Your task to perform on an android device: turn on location history Image 0: 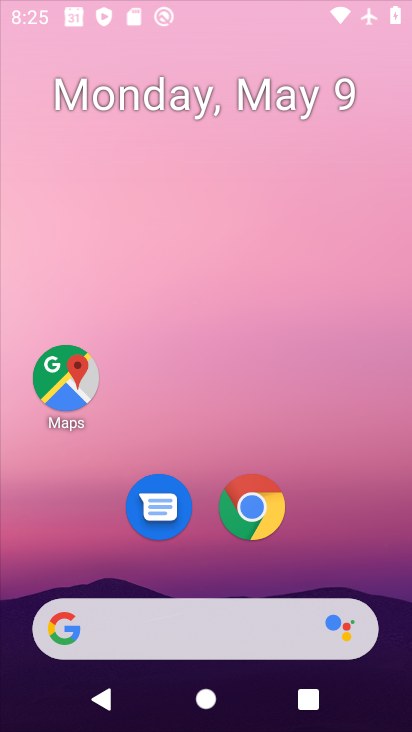
Step 0: click (53, 714)
Your task to perform on an android device: turn on location history Image 1: 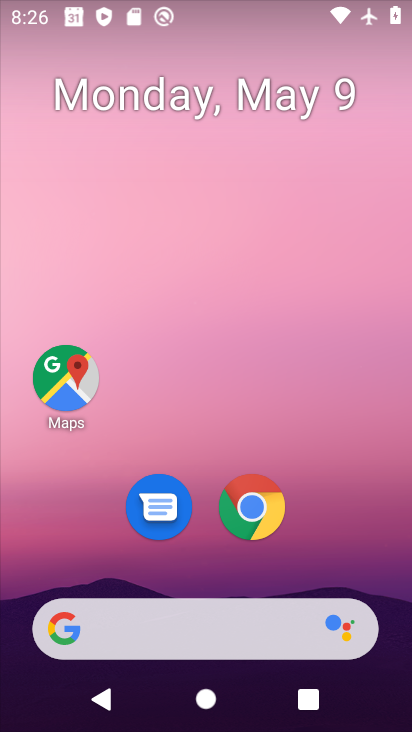
Step 1: drag from (215, 613) to (215, 2)
Your task to perform on an android device: turn on location history Image 2: 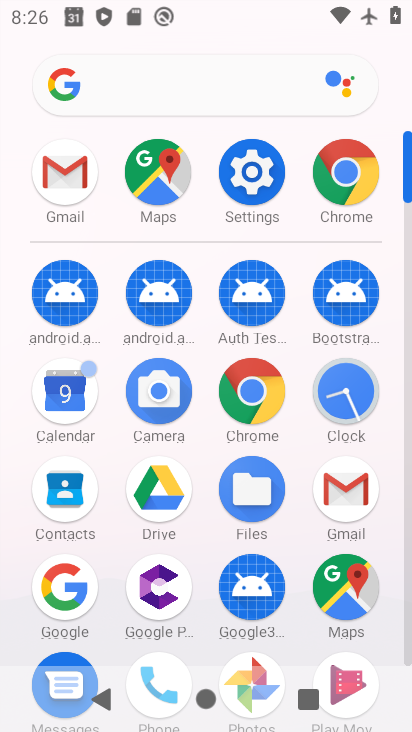
Step 2: click (244, 165)
Your task to perform on an android device: turn on location history Image 3: 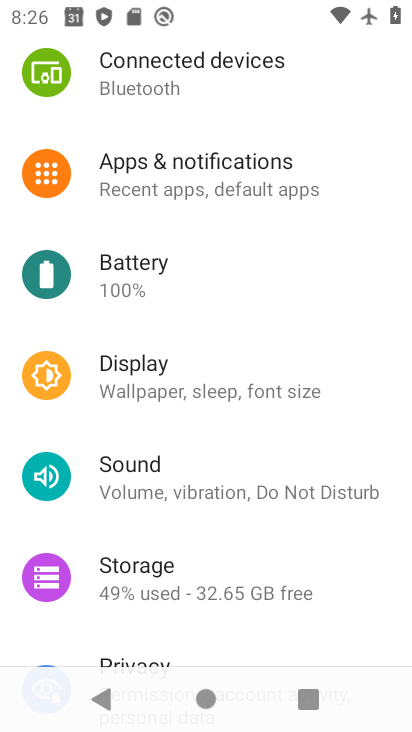
Step 3: drag from (181, 546) to (106, 127)
Your task to perform on an android device: turn on location history Image 4: 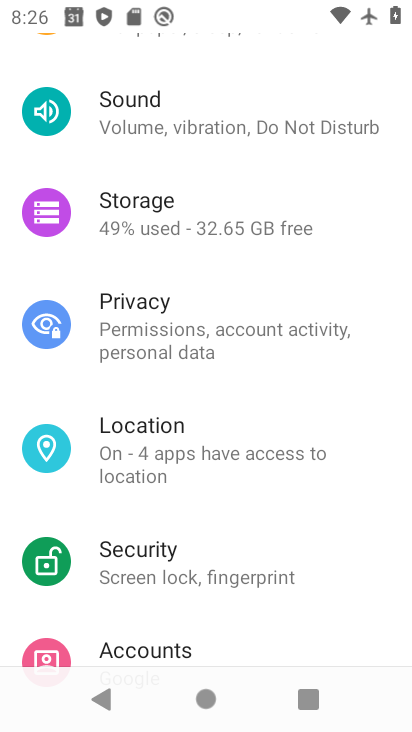
Step 4: click (154, 428)
Your task to perform on an android device: turn on location history Image 5: 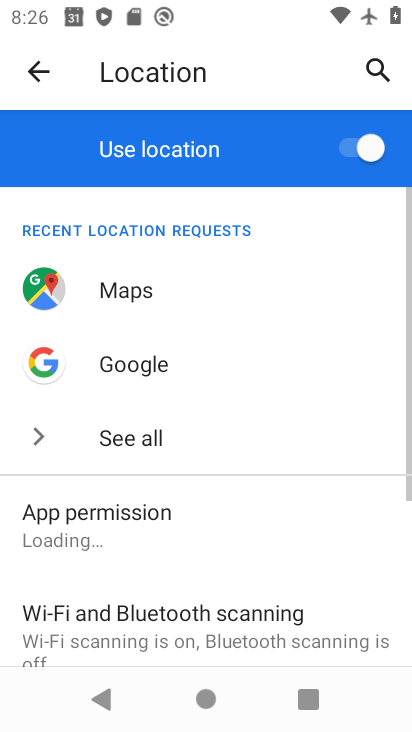
Step 5: drag from (231, 577) to (136, 123)
Your task to perform on an android device: turn on location history Image 6: 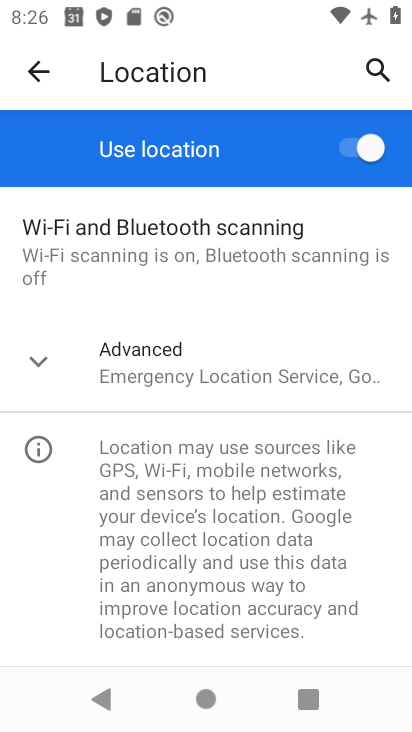
Step 6: click (146, 401)
Your task to perform on an android device: turn on location history Image 7: 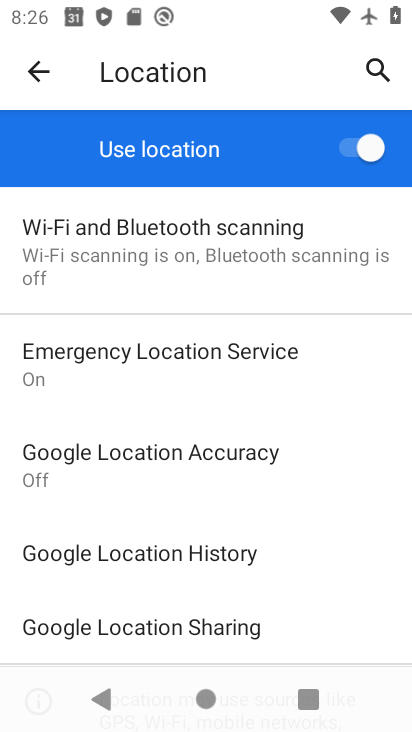
Step 7: click (228, 566)
Your task to perform on an android device: turn on location history Image 8: 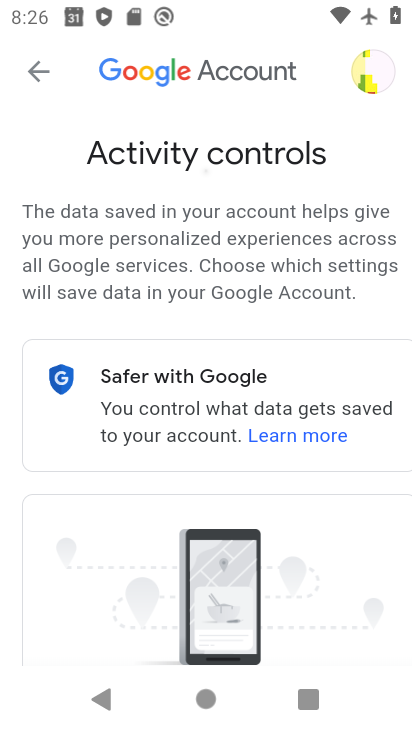
Step 8: drag from (232, 566) to (161, 166)
Your task to perform on an android device: turn on location history Image 9: 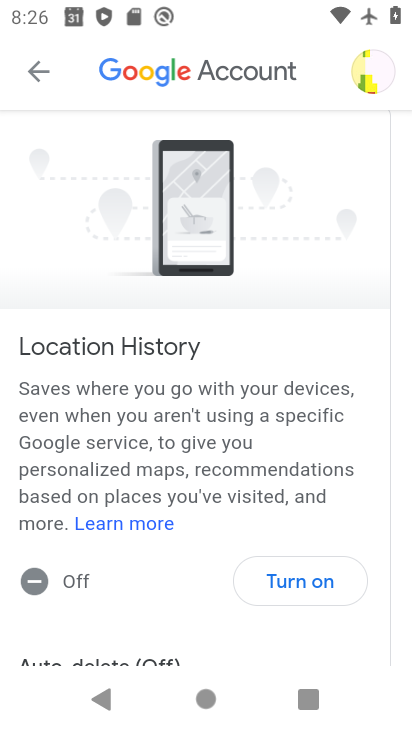
Step 9: click (255, 584)
Your task to perform on an android device: turn on location history Image 10: 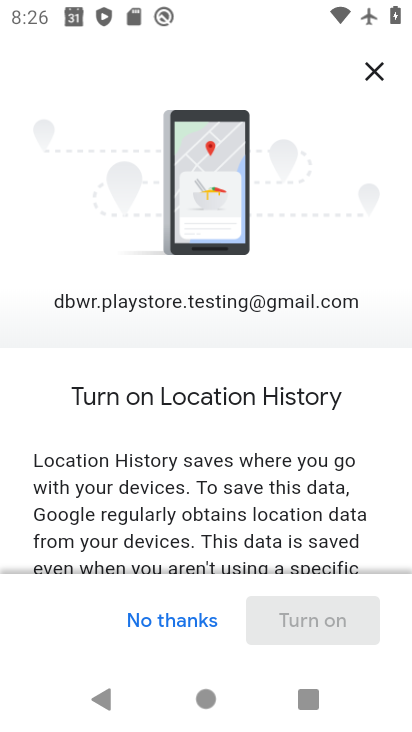
Step 10: drag from (325, 460) to (163, 0)
Your task to perform on an android device: turn on location history Image 11: 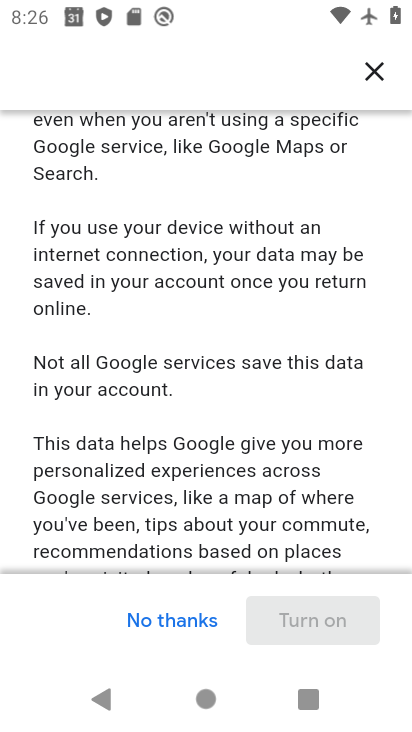
Step 11: drag from (220, 513) to (410, 392)
Your task to perform on an android device: turn on location history Image 12: 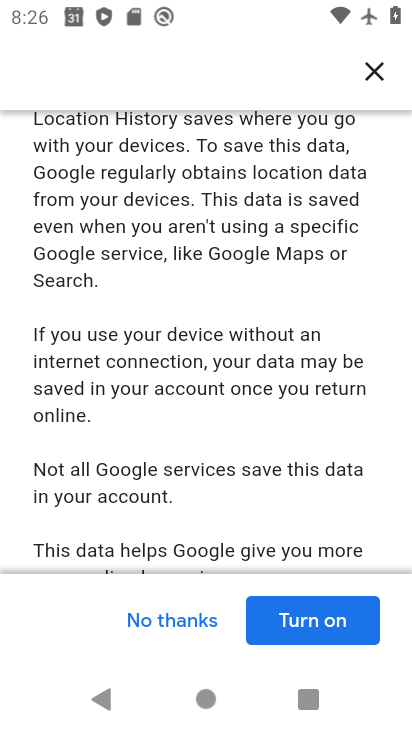
Step 12: click (276, 662)
Your task to perform on an android device: turn on location history Image 13: 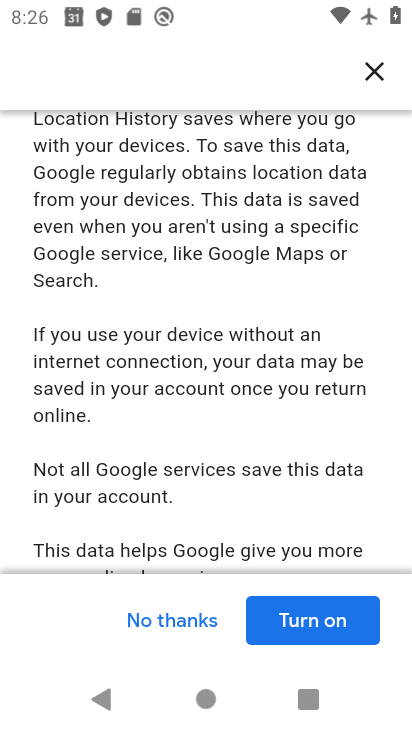
Step 13: click (279, 642)
Your task to perform on an android device: turn on location history Image 14: 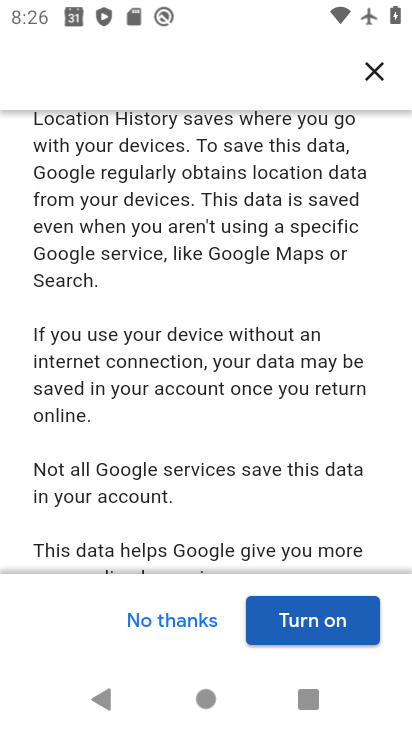
Step 14: click (287, 644)
Your task to perform on an android device: turn on location history Image 15: 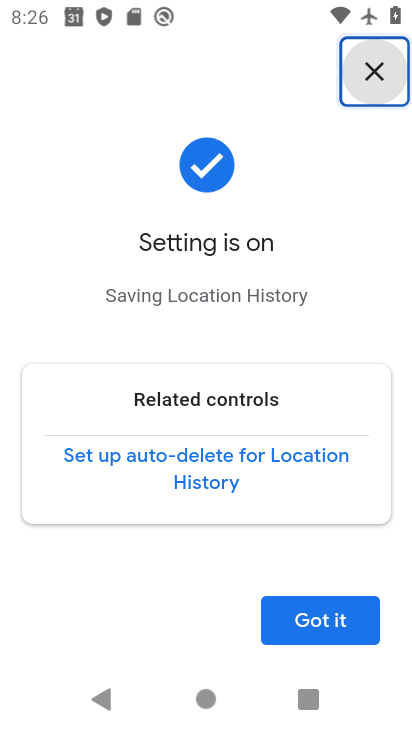
Step 15: click (323, 613)
Your task to perform on an android device: turn on location history Image 16: 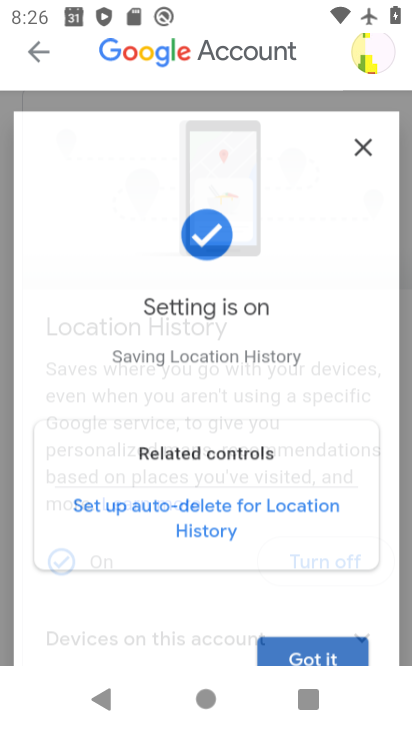
Step 16: task complete